Your task to perform on an android device: Go to Yahoo.com Image 0: 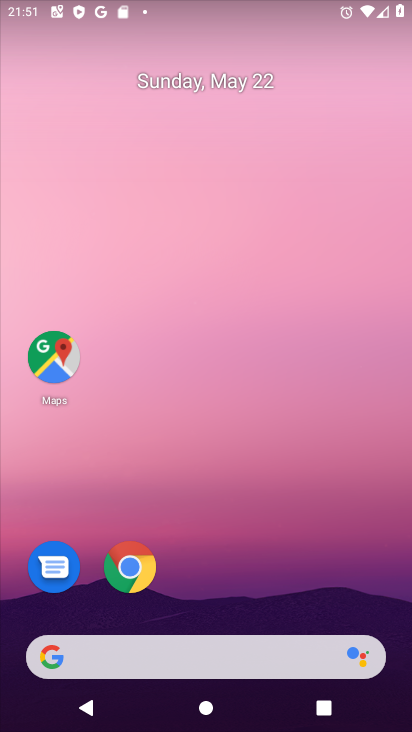
Step 0: click (141, 567)
Your task to perform on an android device: Go to Yahoo.com Image 1: 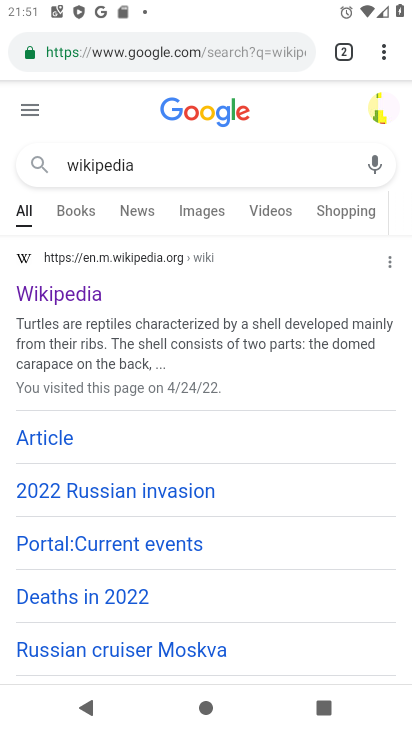
Step 1: click (208, 41)
Your task to perform on an android device: Go to Yahoo.com Image 2: 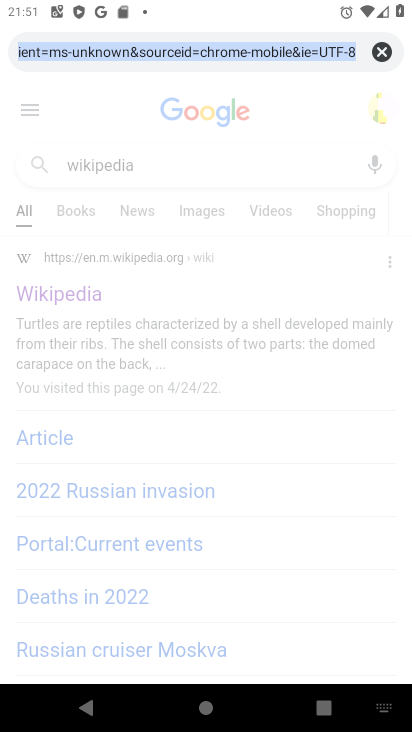
Step 2: type "yahoo.com"
Your task to perform on an android device: Go to Yahoo.com Image 3: 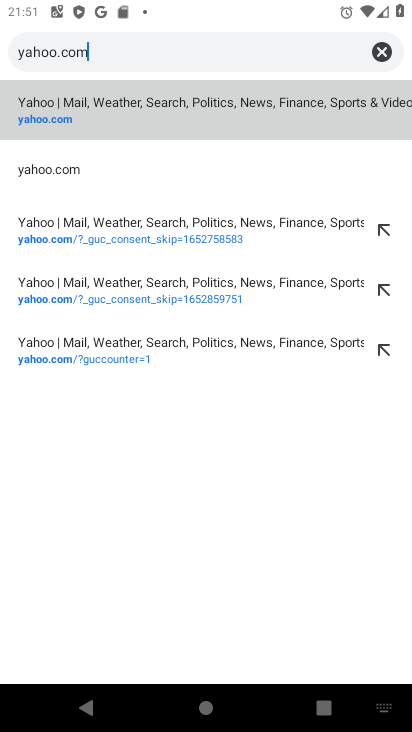
Step 3: click (94, 115)
Your task to perform on an android device: Go to Yahoo.com Image 4: 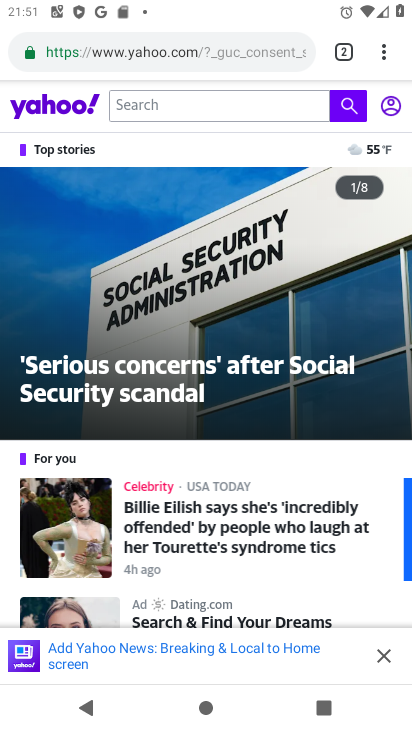
Step 4: task complete